Your task to perform on an android device: add a label to a message in the gmail app Image 0: 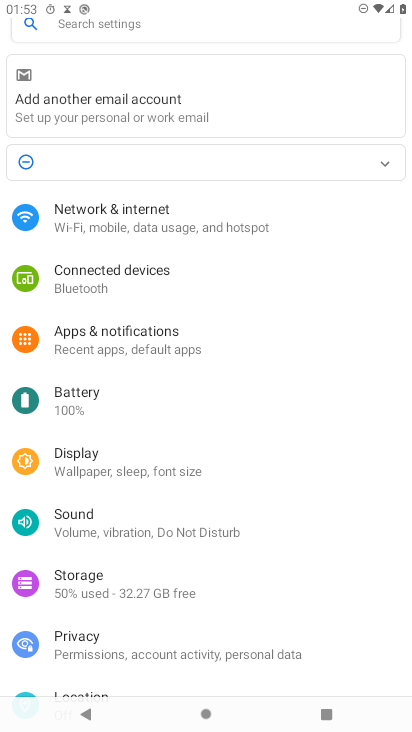
Step 0: press home button
Your task to perform on an android device: add a label to a message in the gmail app Image 1: 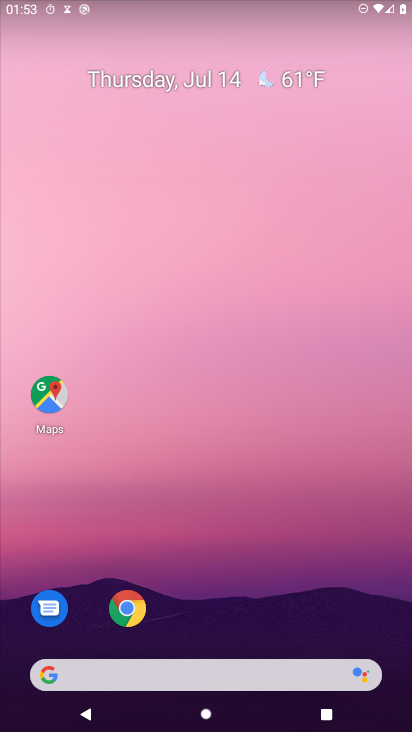
Step 1: drag from (300, 599) to (198, 51)
Your task to perform on an android device: add a label to a message in the gmail app Image 2: 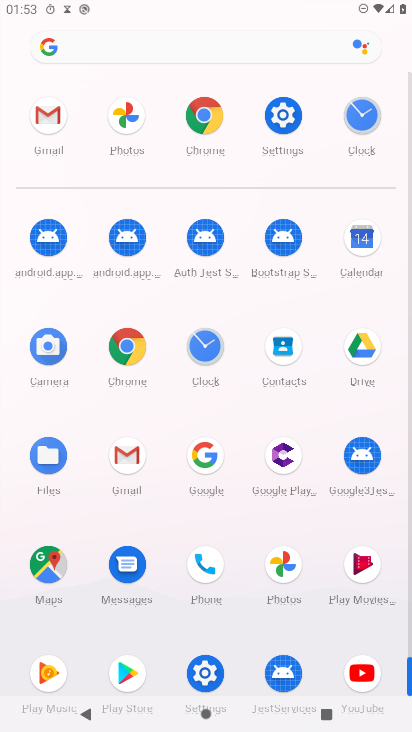
Step 2: click (42, 114)
Your task to perform on an android device: add a label to a message in the gmail app Image 3: 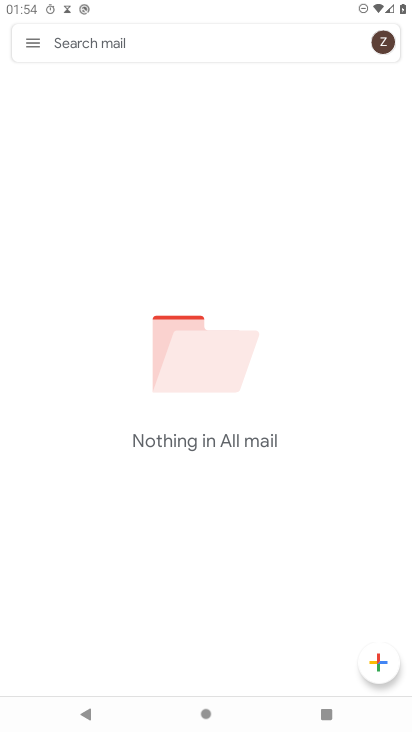
Step 3: click (35, 33)
Your task to perform on an android device: add a label to a message in the gmail app Image 4: 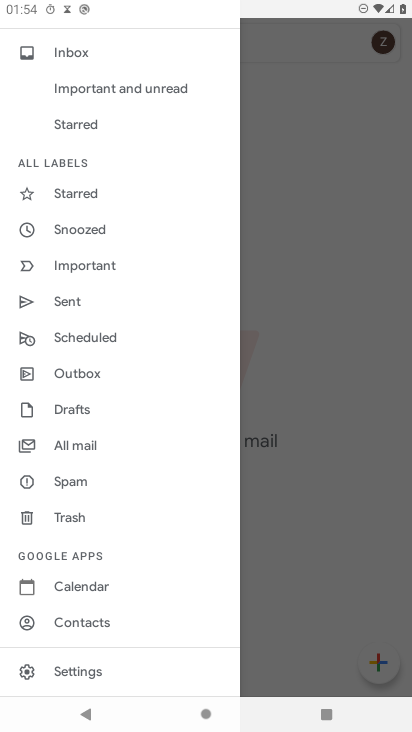
Step 4: click (99, 443)
Your task to perform on an android device: add a label to a message in the gmail app Image 5: 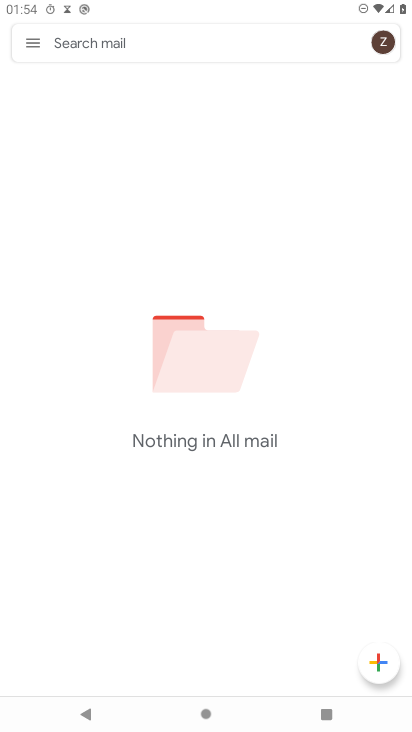
Step 5: task complete